Your task to perform on an android device: turn on sleep mode Image 0: 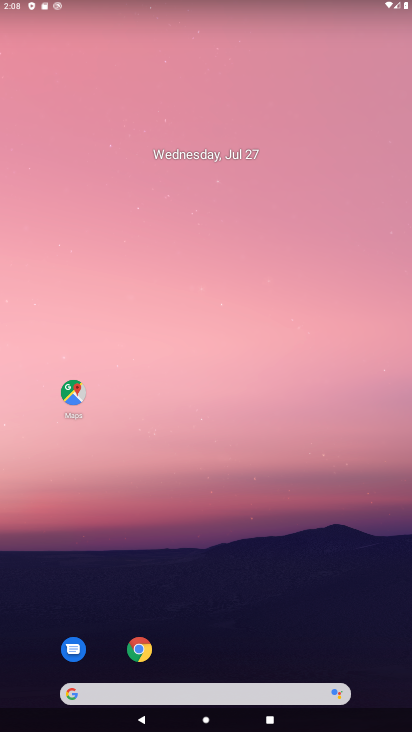
Step 0: drag from (154, 106) to (135, 46)
Your task to perform on an android device: turn on sleep mode Image 1: 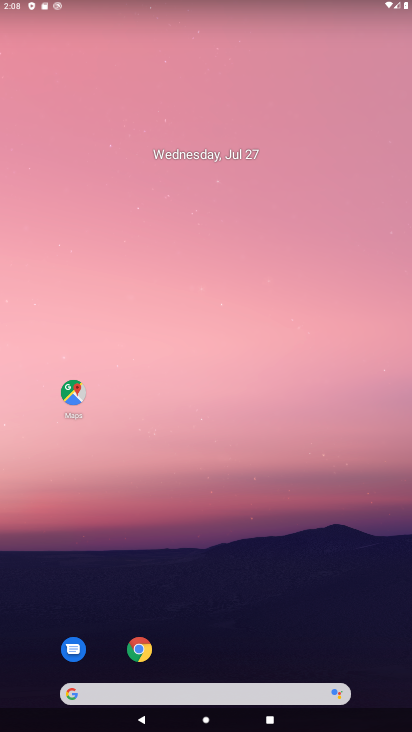
Step 1: drag from (392, 620) to (105, 49)
Your task to perform on an android device: turn on sleep mode Image 2: 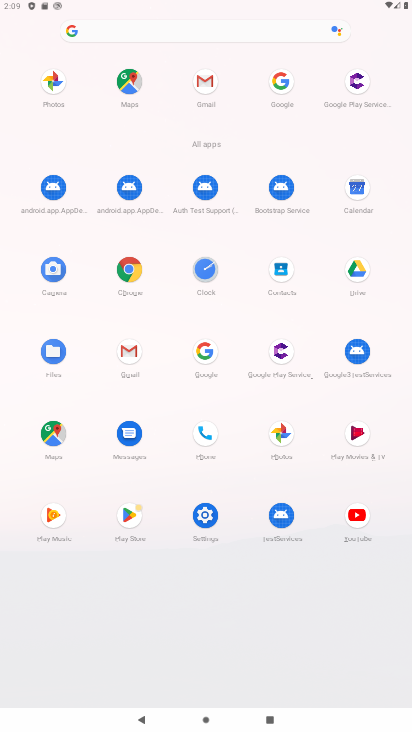
Step 2: click (205, 519)
Your task to perform on an android device: turn on sleep mode Image 3: 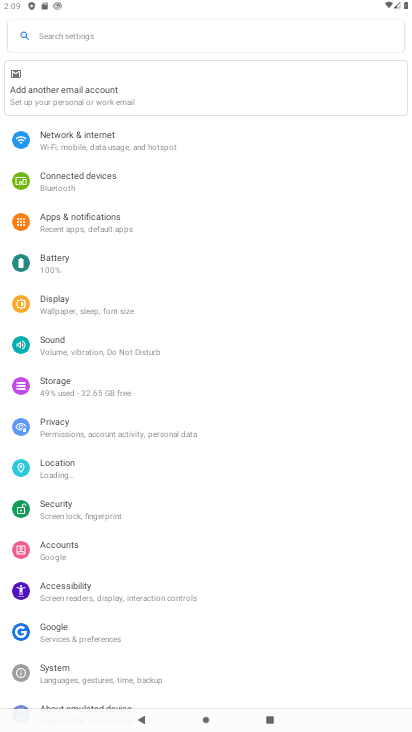
Step 3: task complete